Your task to perform on an android device: empty trash in google photos Image 0: 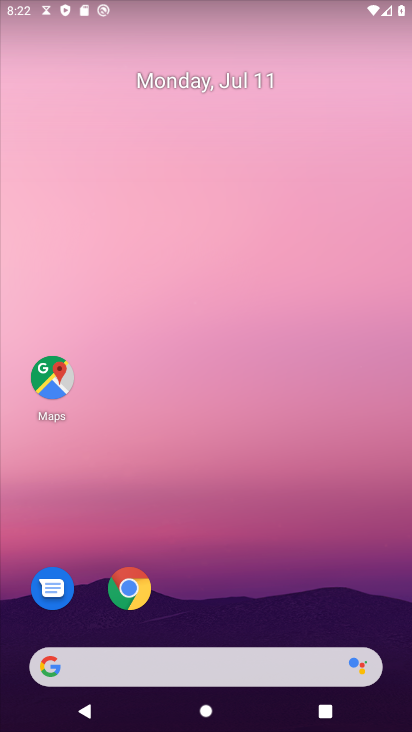
Step 0: press home button
Your task to perform on an android device: empty trash in google photos Image 1: 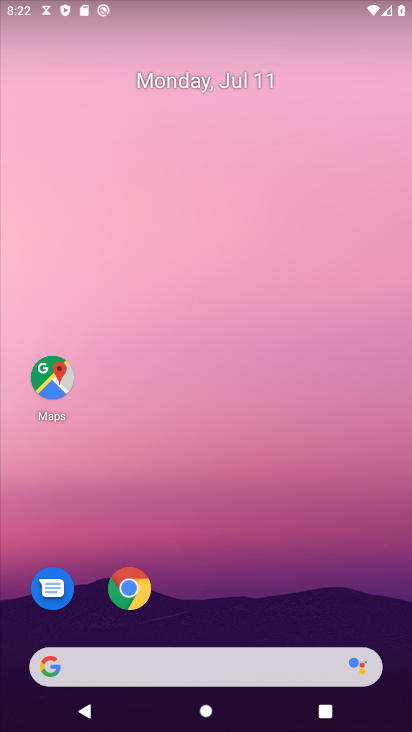
Step 1: drag from (276, 590) to (207, 127)
Your task to perform on an android device: empty trash in google photos Image 2: 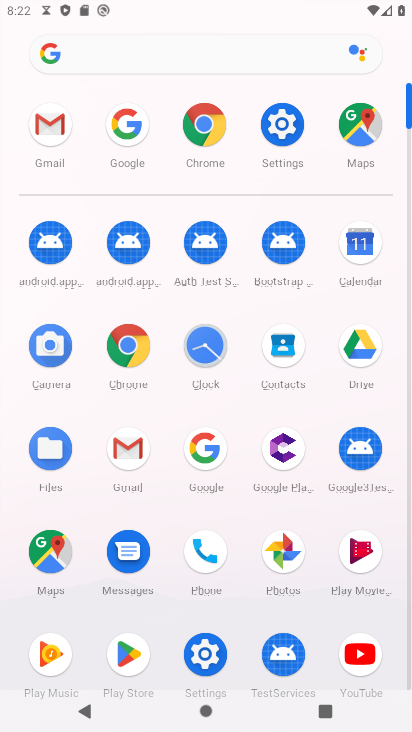
Step 2: click (291, 541)
Your task to perform on an android device: empty trash in google photos Image 3: 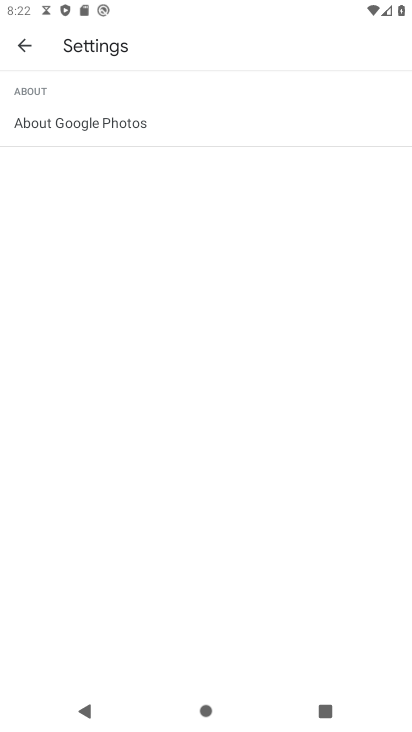
Step 3: click (25, 41)
Your task to perform on an android device: empty trash in google photos Image 4: 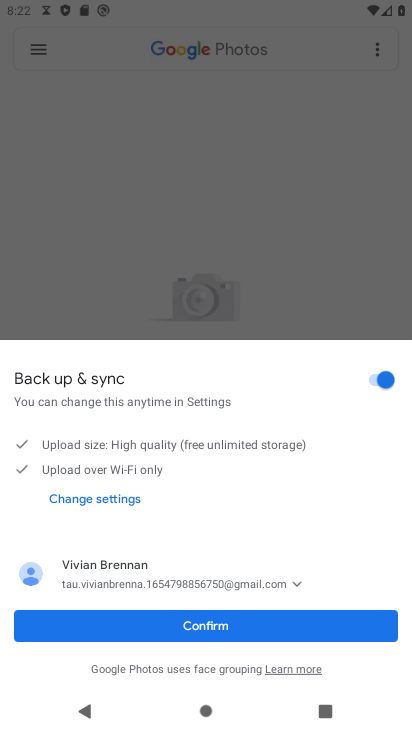
Step 4: click (162, 629)
Your task to perform on an android device: empty trash in google photos Image 5: 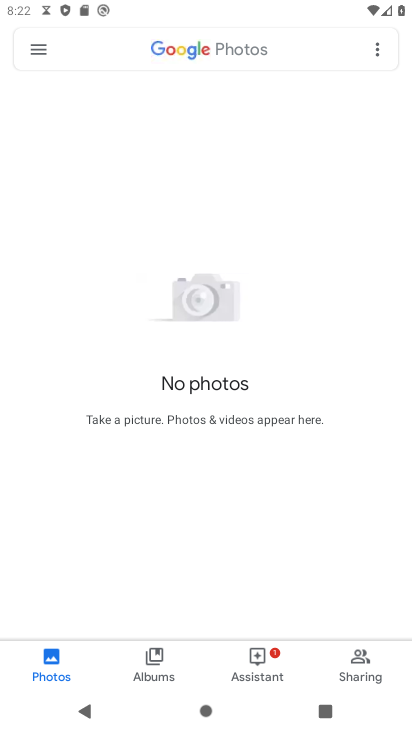
Step 5: click (38, 52)
Your task to perform on an android device: empty trash in google photos Image 6: 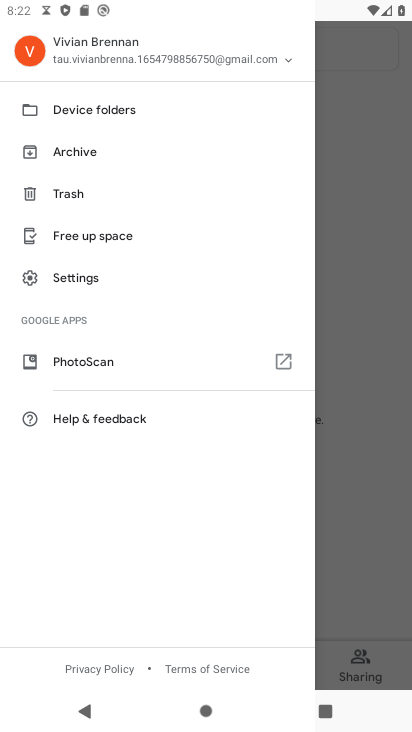
Step 6: click (94, 194)
Your task to perform on an android device: empty trash in google photos Image 7: 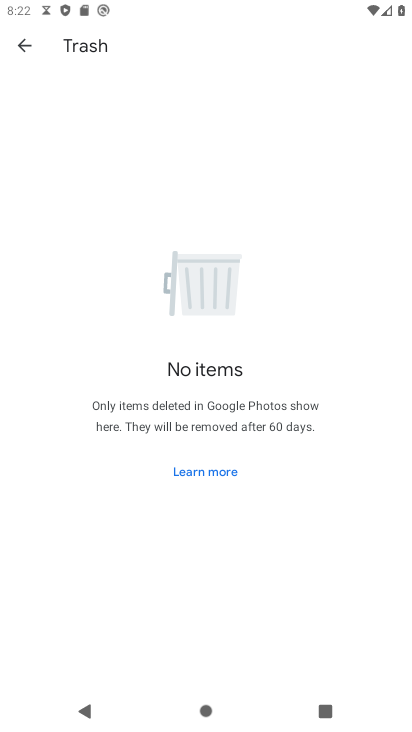
Step 7: task complete